Your task to perform on an android device: Go to Wikipedia Image 0: 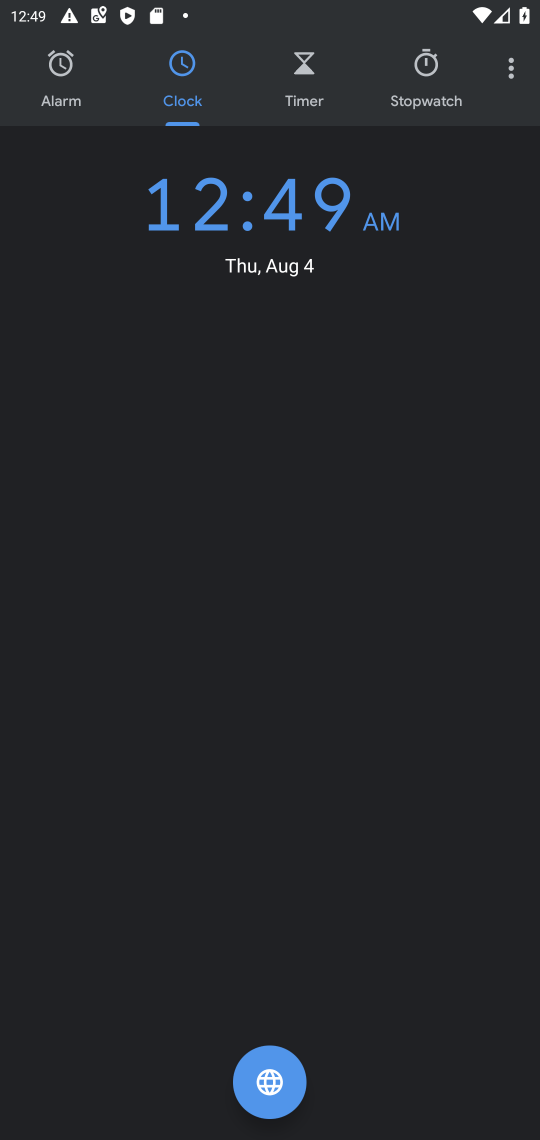
Step 0: press home button
Your task to perform on an android device: Go to Wikipedia Image 1: 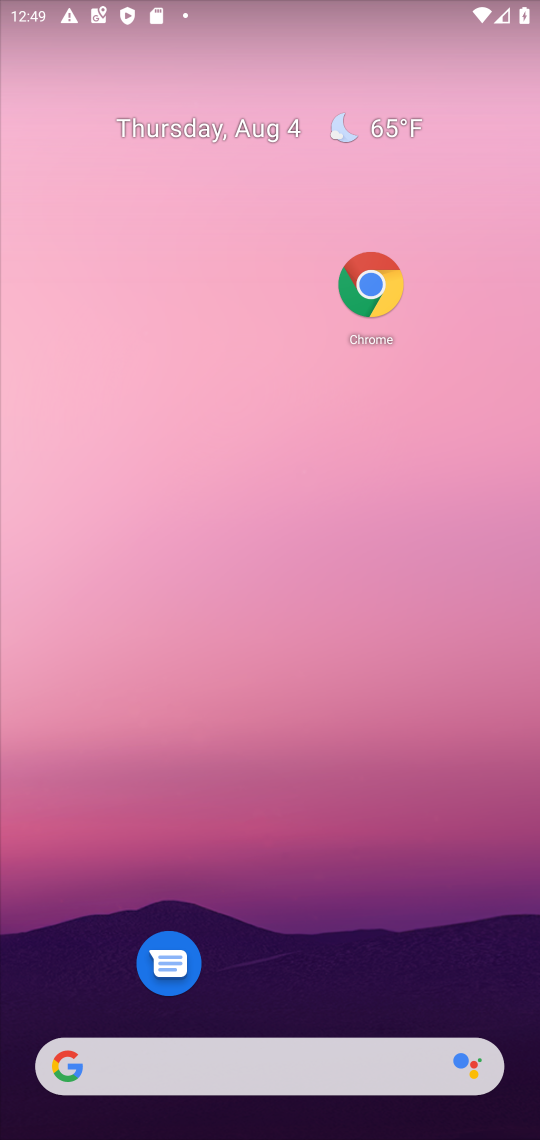
Step 1: drag from (217, 896) to (216, 350)
Your task to perform on an android device: Go to Wikipedia Image 2: 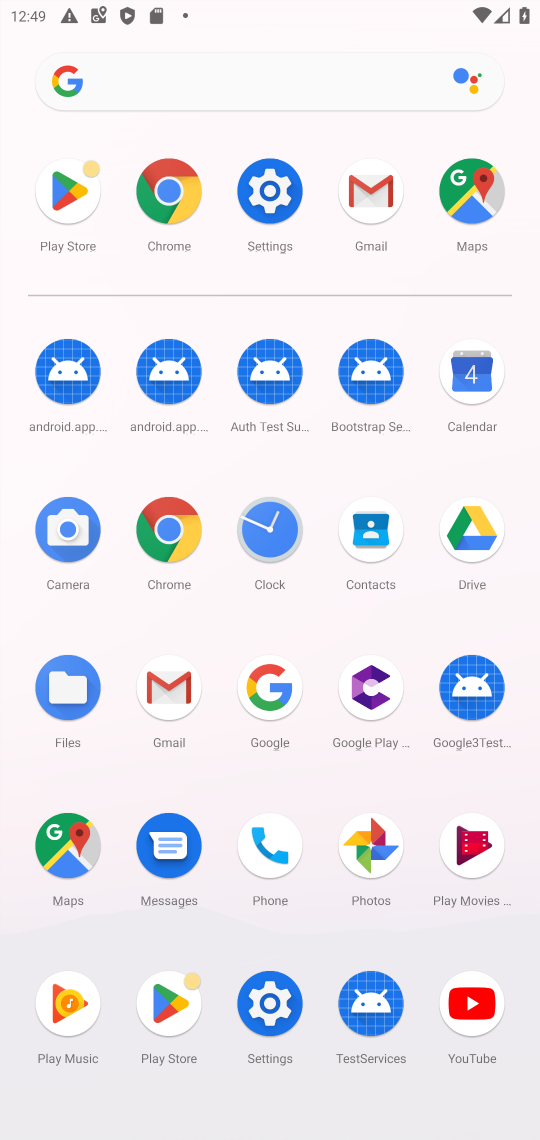
Step 2: click (160, 510)
Your task to perform on an android device: Go to Wikipedia Image 3: 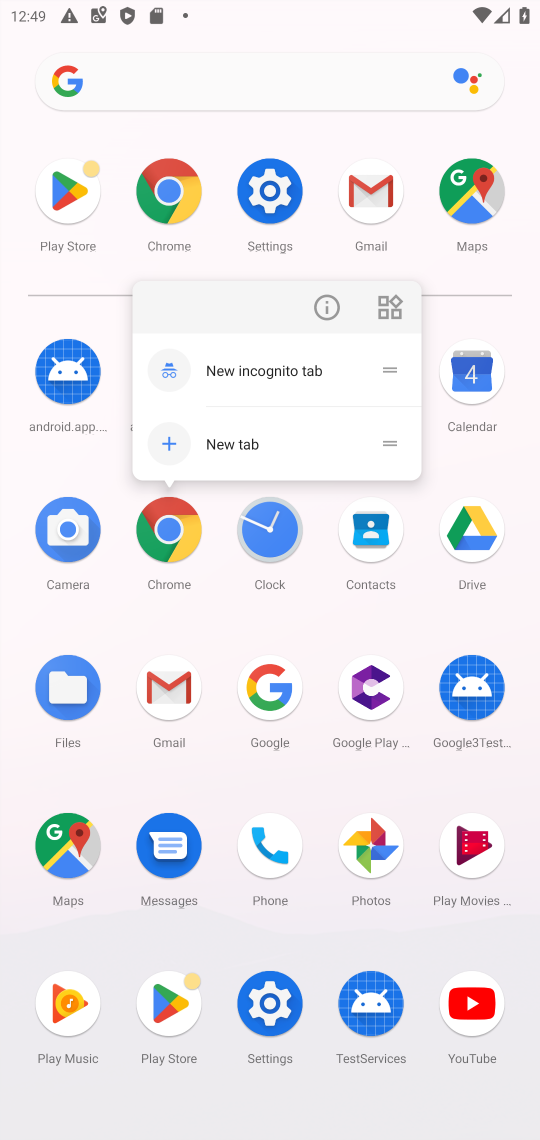
Step 3: click (160, 522)
Your task to perform on an android device: Go to Wikipedia Image 4: 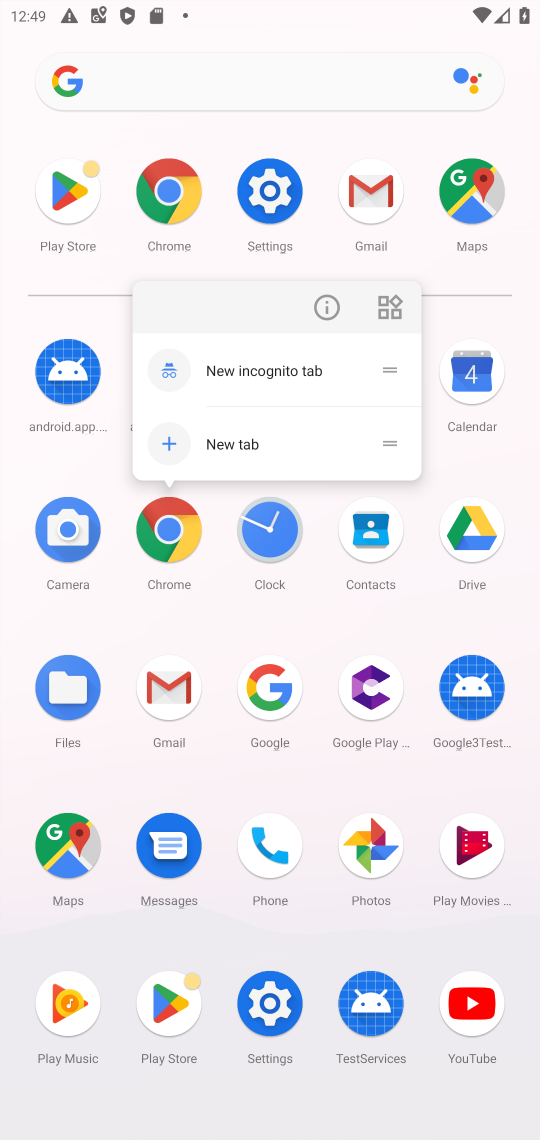
Step 4: click (160, 522)
Your task to perform on an android device: Go to Wikipedia Image 5: 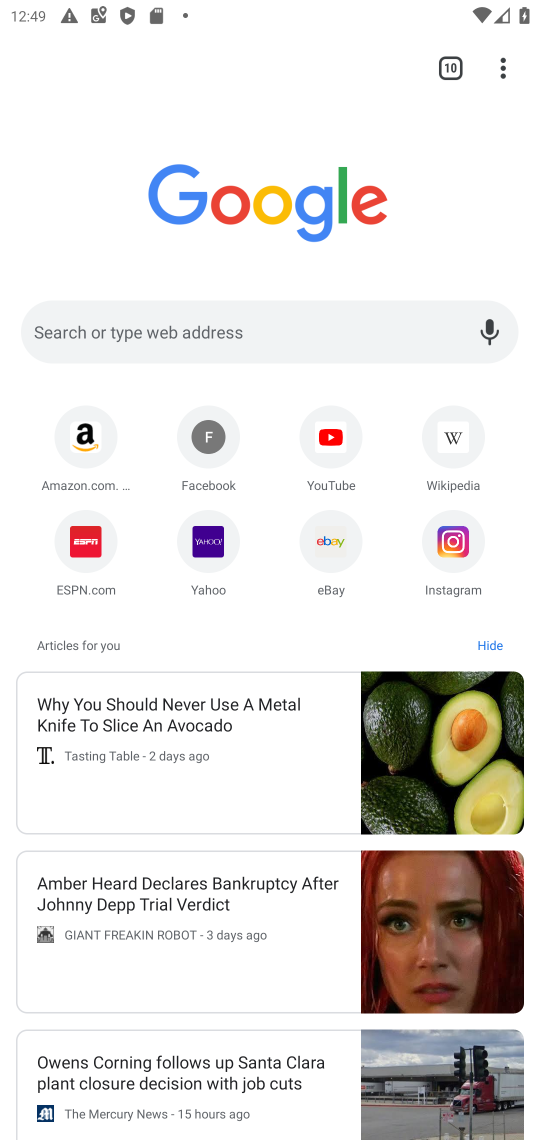
Step 5: click (444, 424)
Your task to perform on an android device: Go to Wikipedia Image 6: 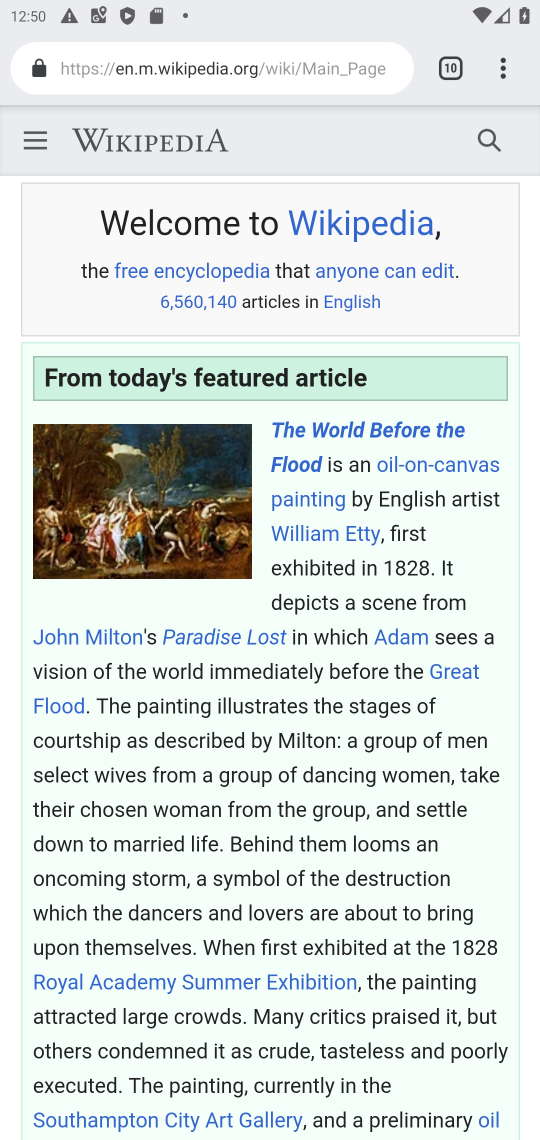
Step 6: task complete